Your task to perform on an android device: Do I have any events this weekend? Image 0: 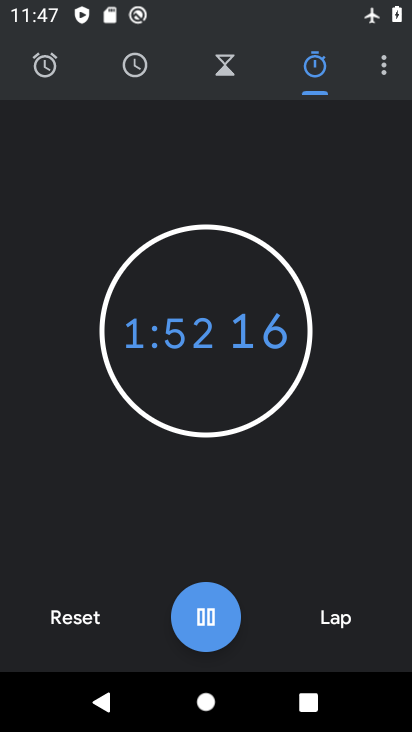
Step 0: click (87, 624)
Your task to perform on an android device: Do I have any events this weekend? Image 1: 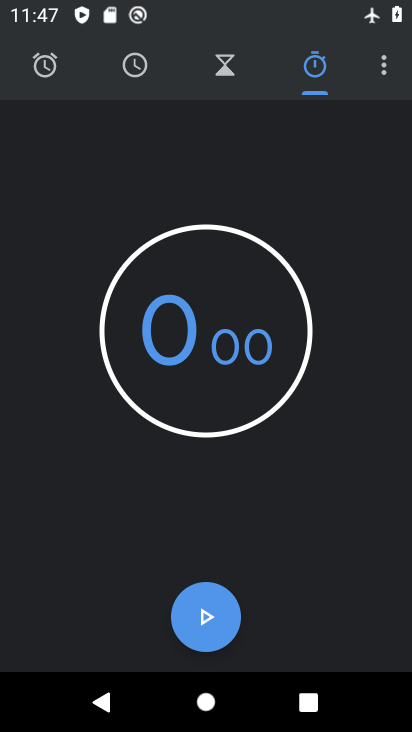
Step 1: press home button
Your task to perform on an android device: Do I have any events this weekend? Image 2: 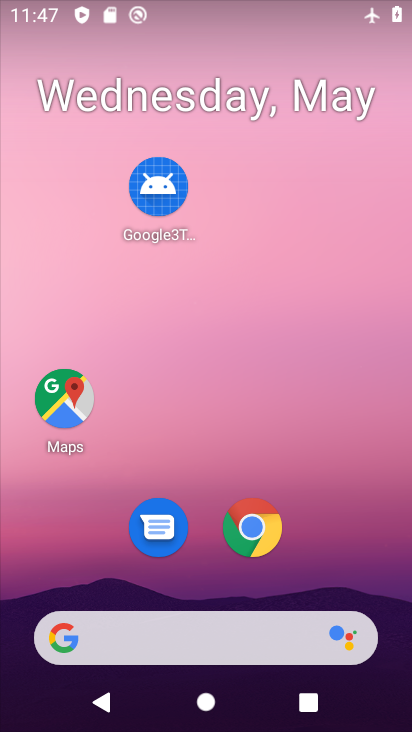
Step 2: drag from (215, 585) to (296, 45)
Your task to perform on an android device: Do I have any events this weekend? Image 3: 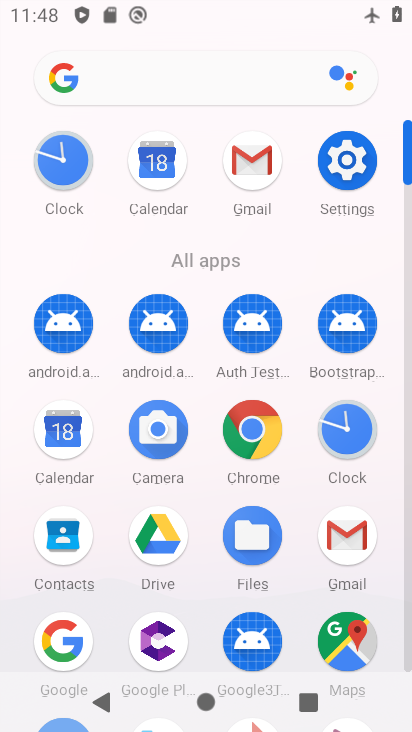
Step 3: click (60, 423)
Your task to perform on an android device: Do I have any events this weekend? Image 4: 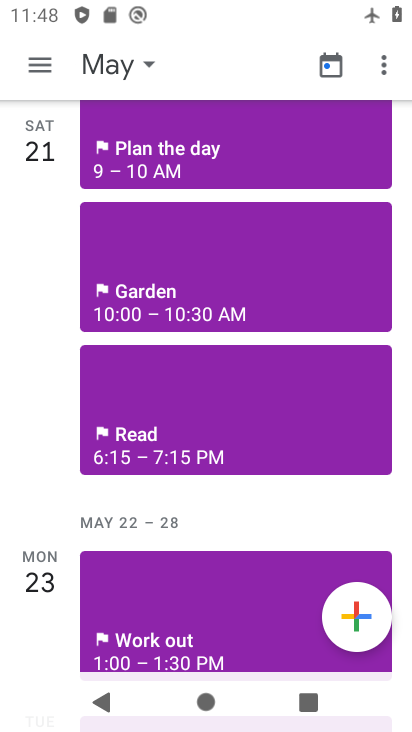
Step 4: drag from (61, 448) to (72, 316)
Your task to perform on an android device: Do I have any events this weekend? Image 5: 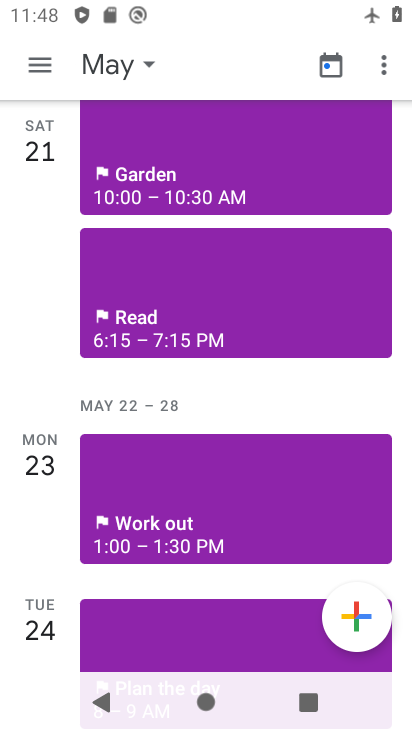
Step 5: click (72, 306)
Your task to perform on an android device: Do I have any events this weekend? Image 6: 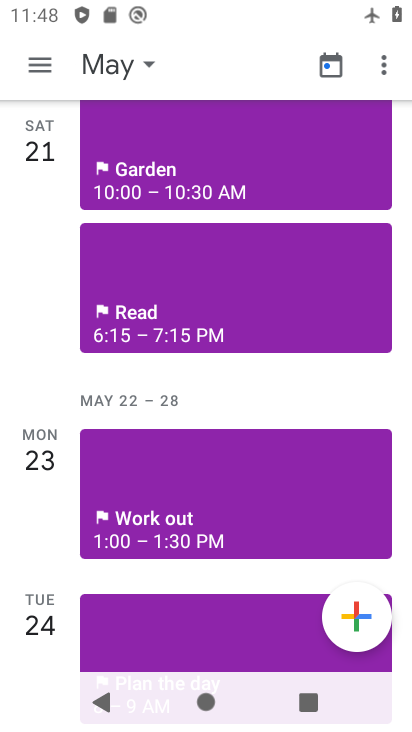
Step 6: click (32, 63)
Your task to perform on an android device: Do I have any events this weekend? Image 7: 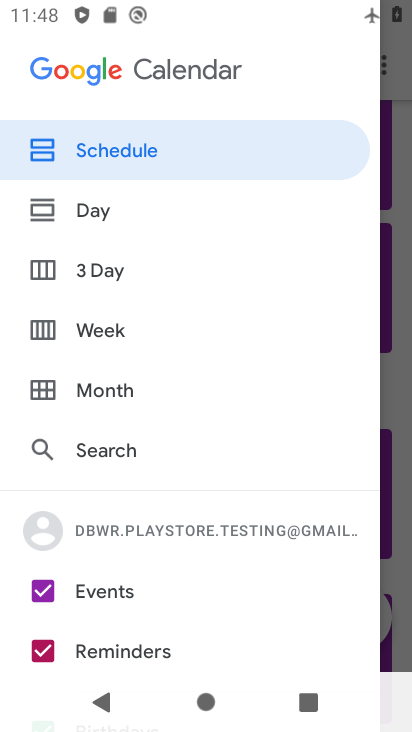
Step 7: drag from (74, 573) to (76, 175)
Your task to perform on an android device: Do I have any events this weekend? Image 8: 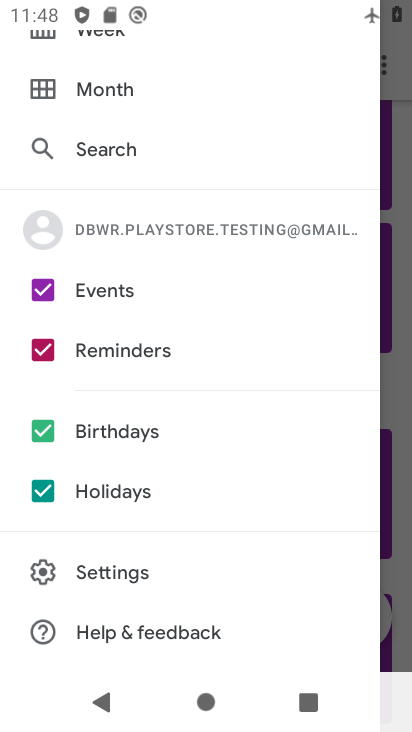
Step 8: click (50, 345)
Your task to perform on an android device: Do I have any events this weekend? Image 9: 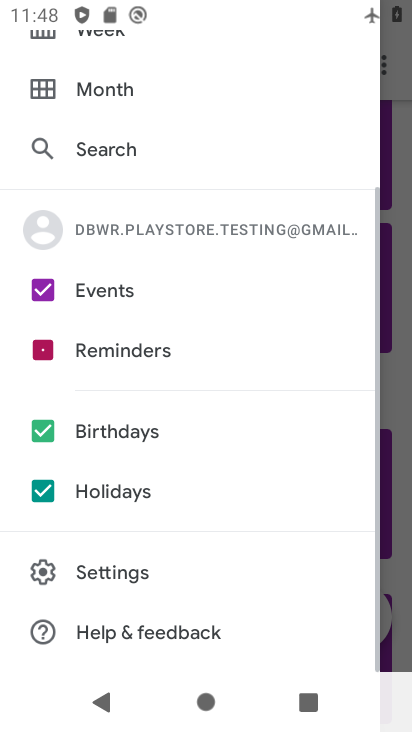
Step 9: click (52, 428)
Your task to perform on an android device: Do I have any events this weekend? Image 10: 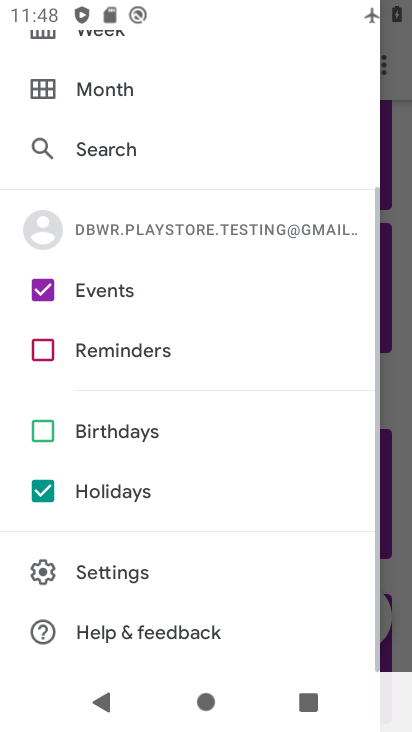
Step 10: click (39, 486)
Your task to perform on an android device: Do I have any events this weekend? Image 11: 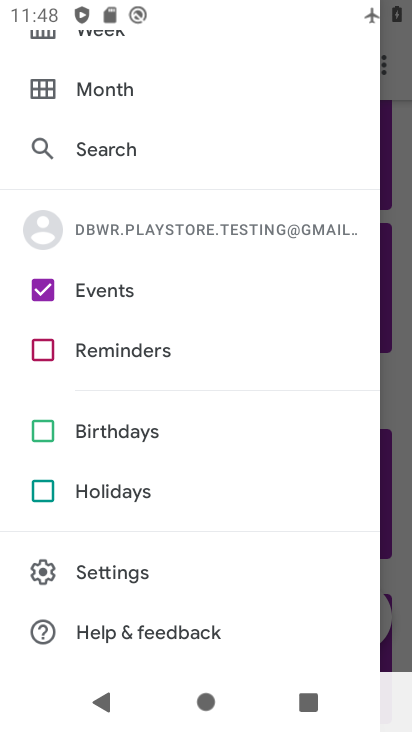
Step 11: drag from (131, 383) to (131, 660)
Your task to perform on an android device: Do I have any events this weekend? Image 12: 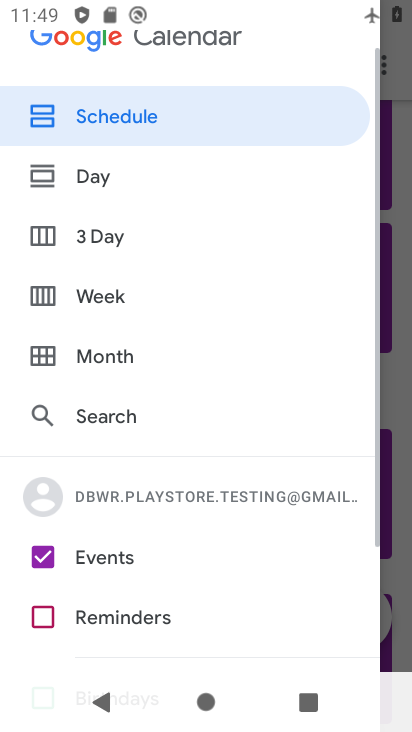
Step 12: drag from (107, 98) to (116, 240)
Your task to perform on an android device: Do I have any events this weekend? Image 13: 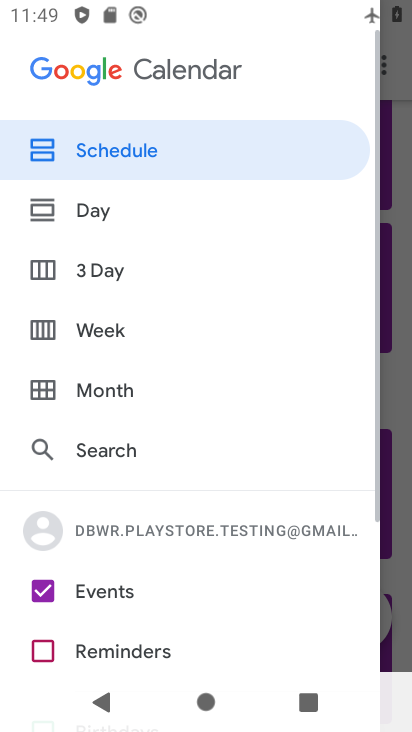
Step 13: click (64, 143)
Your task to perform on an android device: Do I have any events this weekend? Image 14: 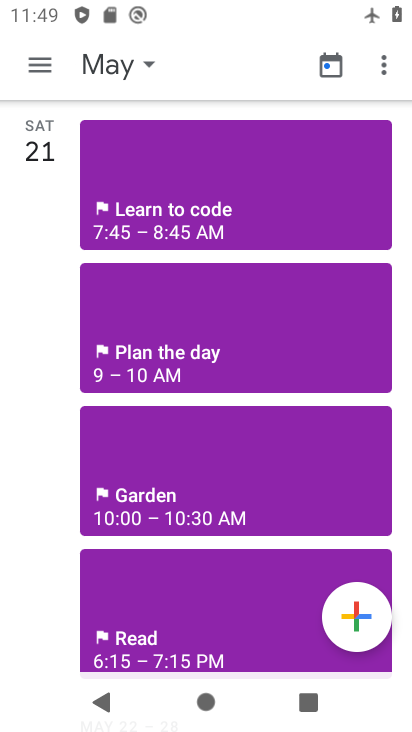
Step 14: task complete